Your task to perform on an android device: See recent photos Image 0: 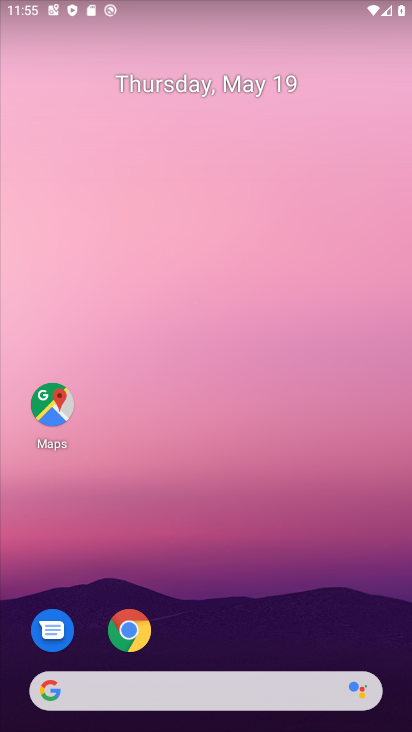
Step 0: drag from (274, 582) to (215, 33)
Your task to perform on an android device: See recent photos Image 1: 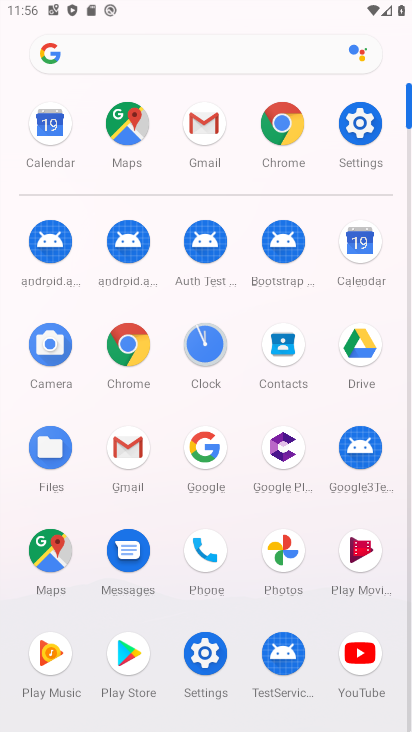
Step 1: click (282, 548)
Your task to perform on an android device: See recent photos Image 2: 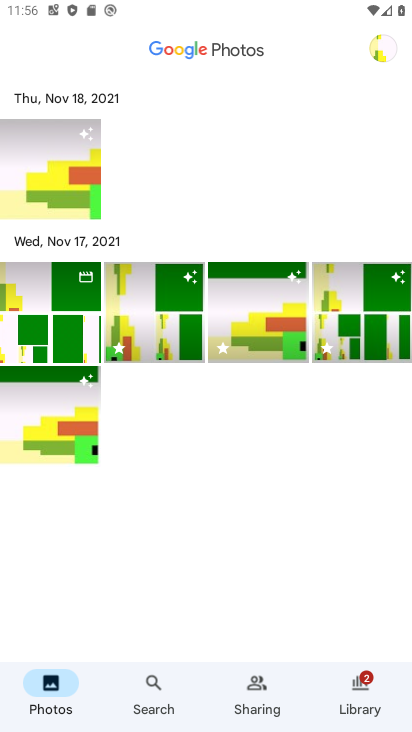
Step 2: click (64, 207)
Your task to perform on an android device: See recent photos Image 3: 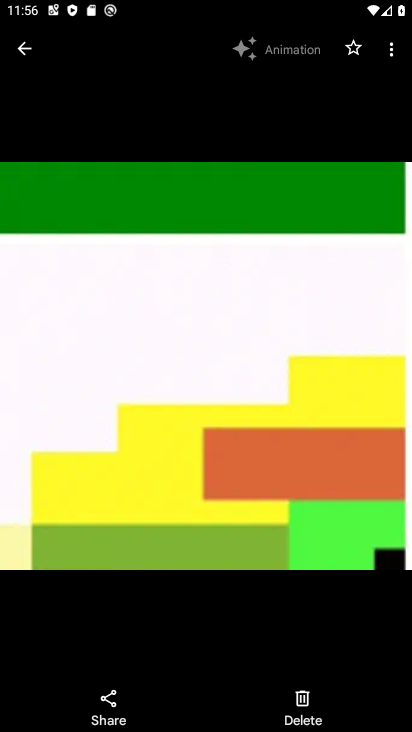
Step 3: task complete